Your task to perform on an android device: Open Google Image 0: 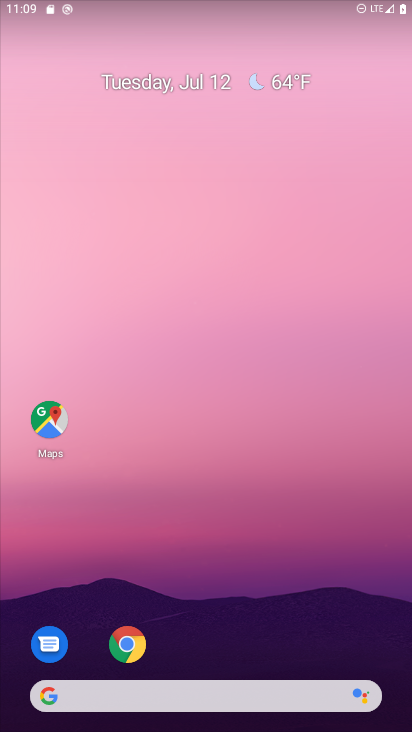
Step 0: drag from (217, 638) to (264, 85)
Your task to perform on an android device: Open Google Image 1: 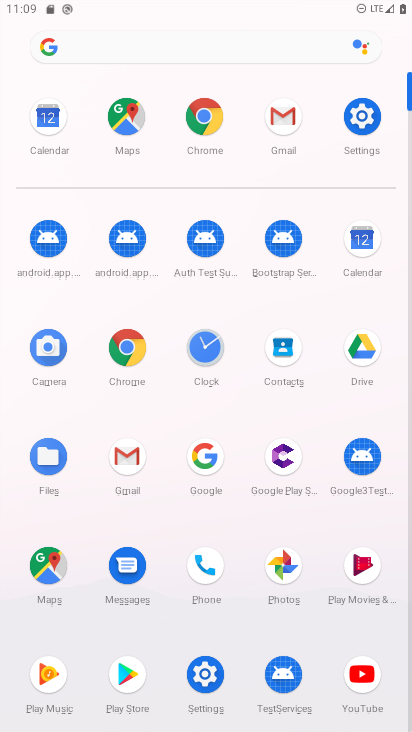
Step 1: click (196, 119)
Your task to perform on an android device: Open Google Image 2: 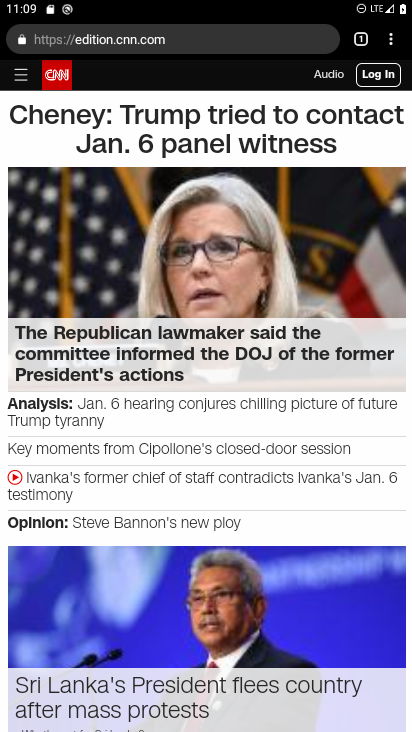
Step 2: click (226, 32)
Your task to perform on an android device: Open Google Image 3: 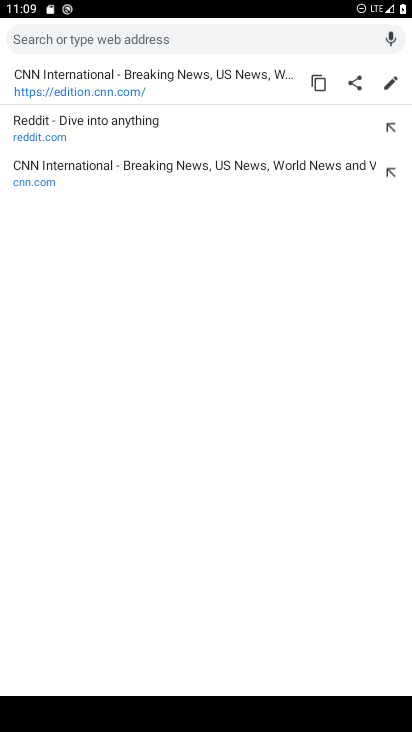
Step 3: type "google.com"
Your task to perform on an android device: Open Google Image 4: 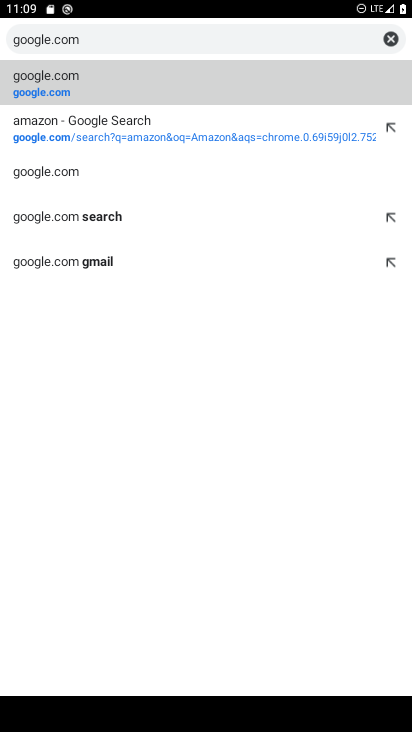
Step 4: click (140, 144)
Your task to perform on an android device: Open Google Image 5: 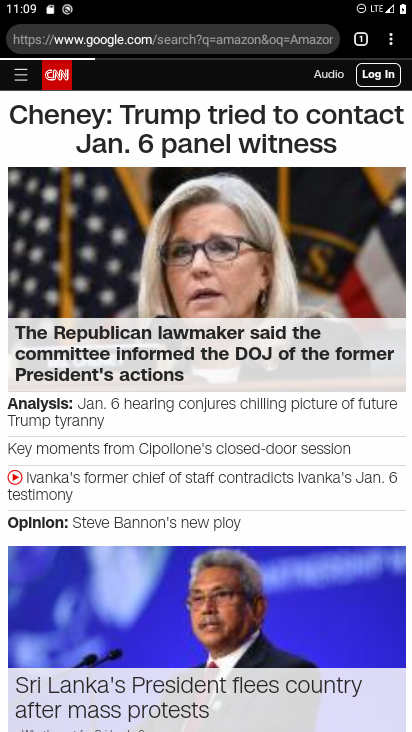
Step 5: task complete